Your task to perform on an android device: Do I have any events this weekend? Image 0: 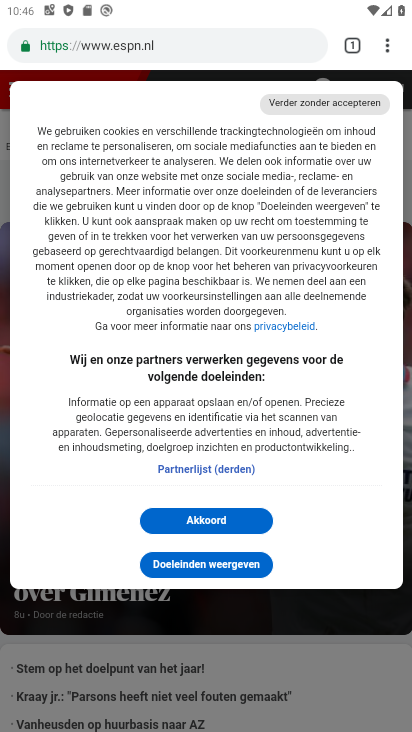
Step 0: press home button
Your task to perform on an android device: Do I have any events this weekend? Image 1: 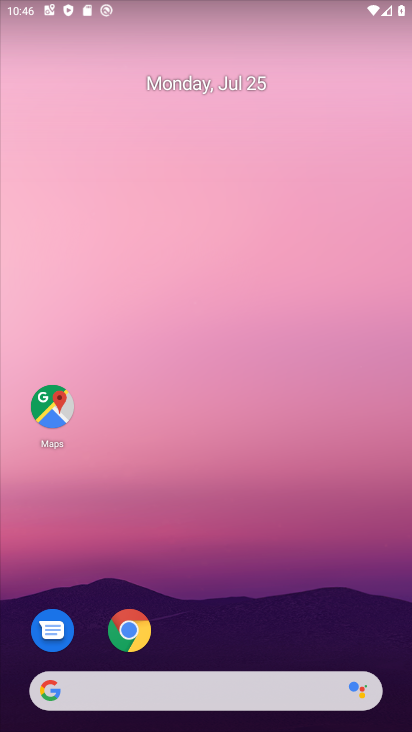
Step 1: drag from (346, 577) to (350, 139)
Your task to perform on an android device: Do I have any events this weekend? Image 2: 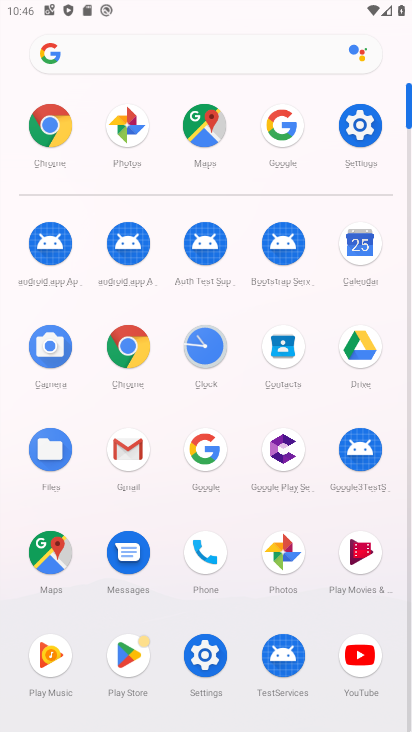
Step 2: click (362, 250)
Your task to perform on an android device: Do I have any events this weekend? Image 3: 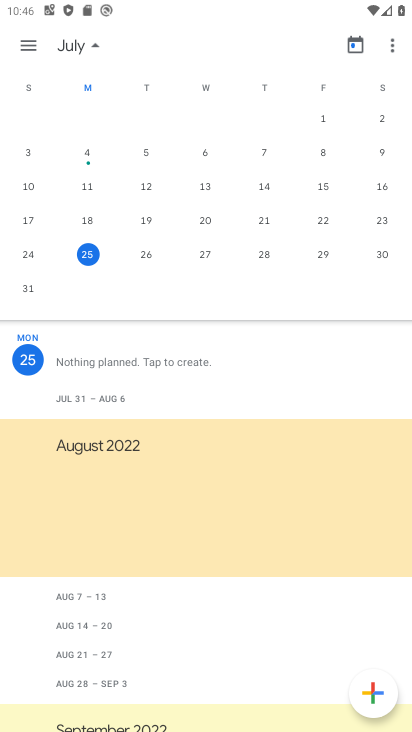
Step 3: task complete